Your task to perform on an android device: open sync settings in chrome Image 0: 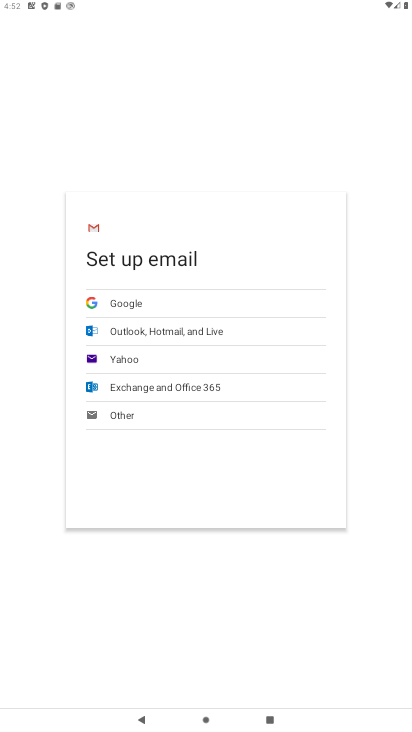
Step 0: press home button
Your task to perform on an android device: open sync settings in chrome Image 1: 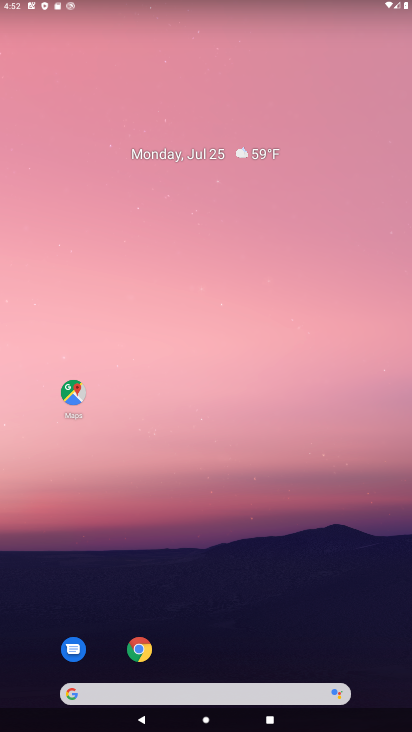
Step 1: drag from (200, 602) to (304, 3)
Your task to perform on an android device: open sync settings in chrome Image 2: 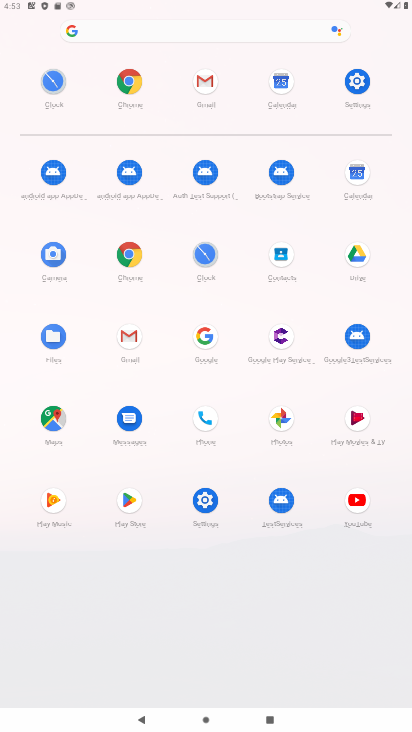
Step 2: click (132, 92)
Your task to perform on an android device: open sync settings in chrome Image 3: 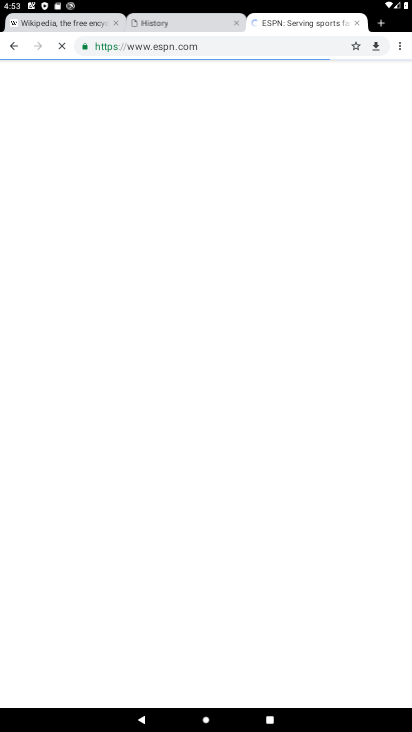
Step 3: drag from (391, 47) to (303, 301)
Your task to perform on an android device: open sync settings in chrome Image 4: 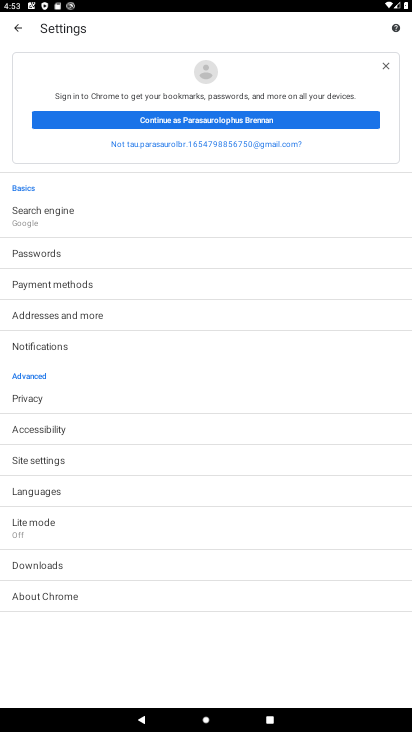
Step 4: click (84, 455)
Your task to perform on an android device: open sync settings in chrome Image 5: 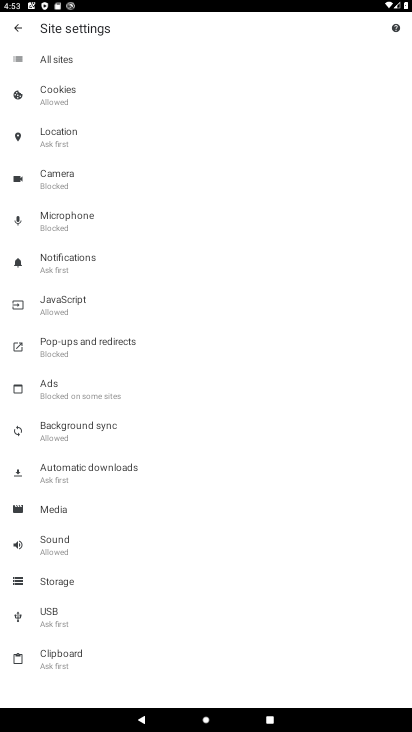
Step 5: drag from (164, 520) to (239, 72)
Your task to perform on an android device: open sync settings in chrome Image 6: 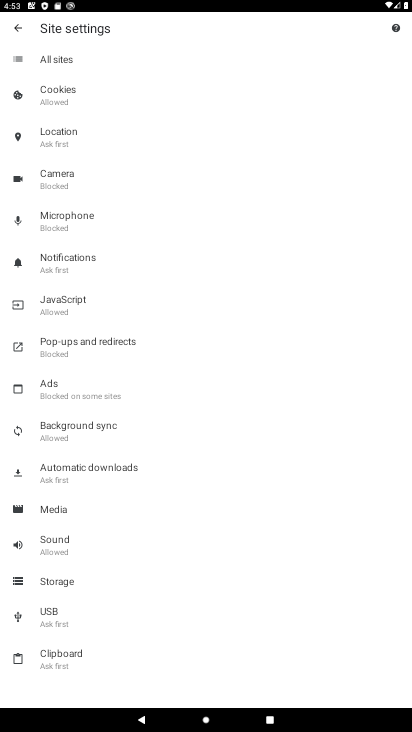
Step 6: click (57, 429)
Your task to perform on an android device: open sync settings in chrome Image 7: 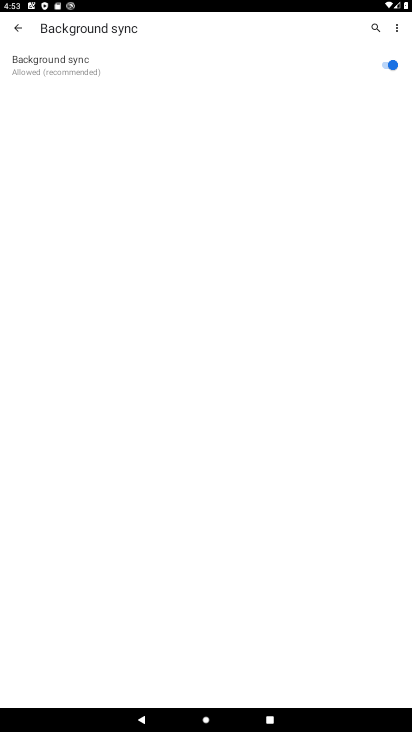
Step 7: task complete